Your task to perform on an android device: toggle improve location accuracy Image 0: 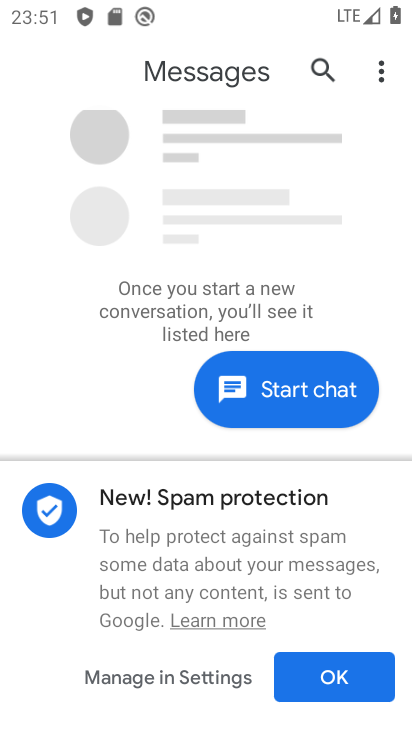
Step 0: press home button
Your task to perform on an android device: toggle improve location accuracy Image 1: 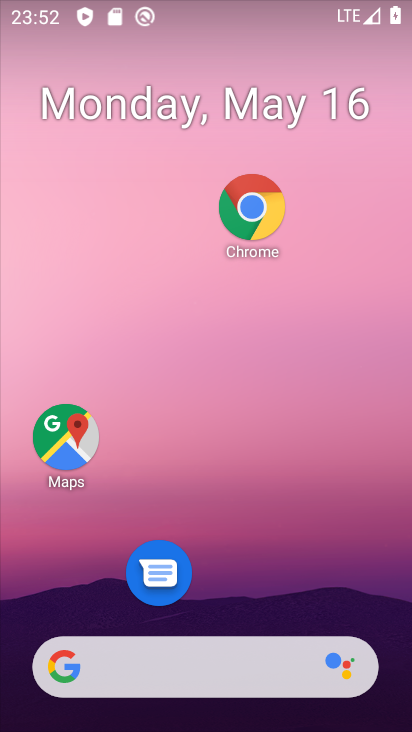
Step 1: drag from (305, 689) to (325, 94)
Your task to perform on an android device: toggle improve location accuracy Image 2: 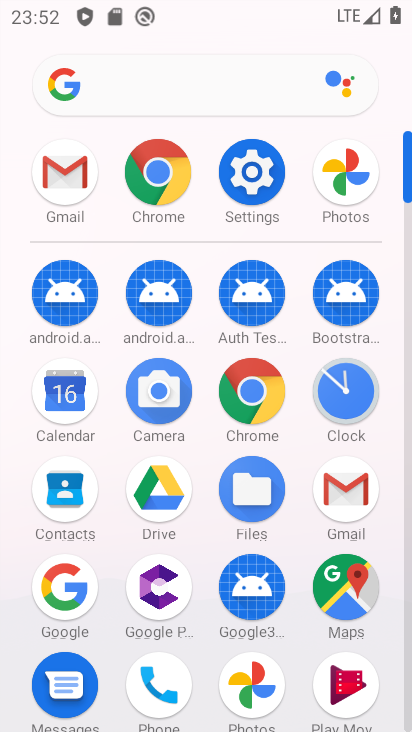
Step 2: click (234, 152)
Your task to perform on an android device: toggle improve location accuracy Image 3: 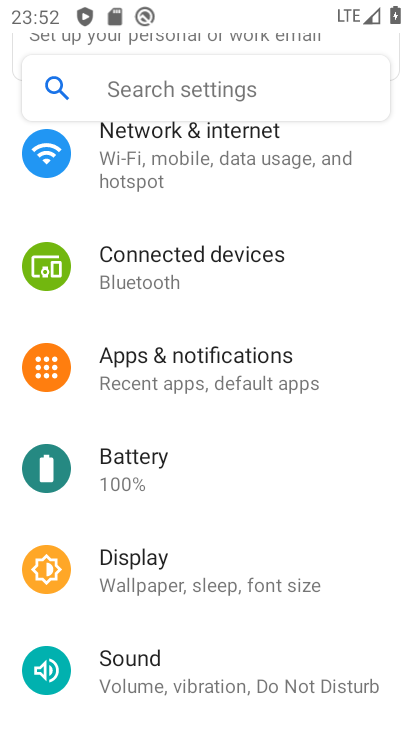
Step 3: drag from (305, 649) to (270, 238)
Your task to perform on an android device: toggle improve location accuracy Image 4: 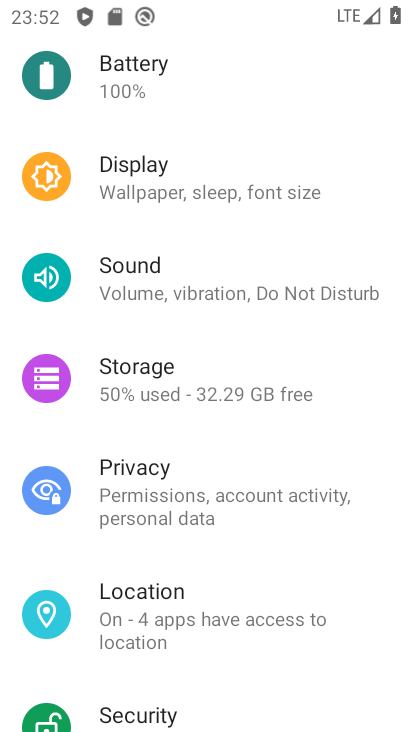
Step 4: click (254, 608)
Your task to perform on an android device: toggle improve location accuracy Image 5: 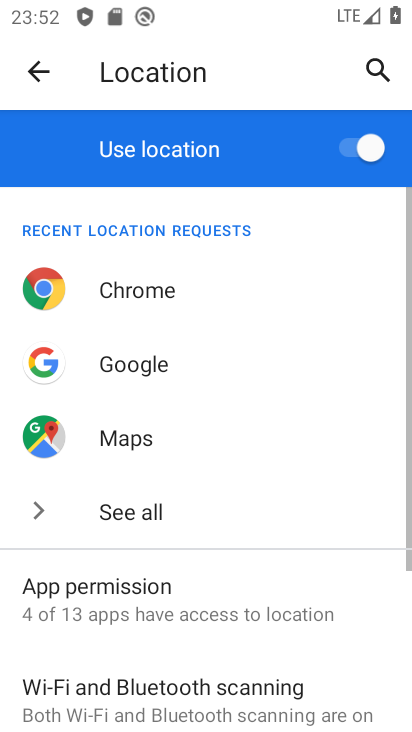
Step 5: drag from (261, 681) to (239, 207)
Your task to perform on an android device: toggle improve location accuracy Image 6: 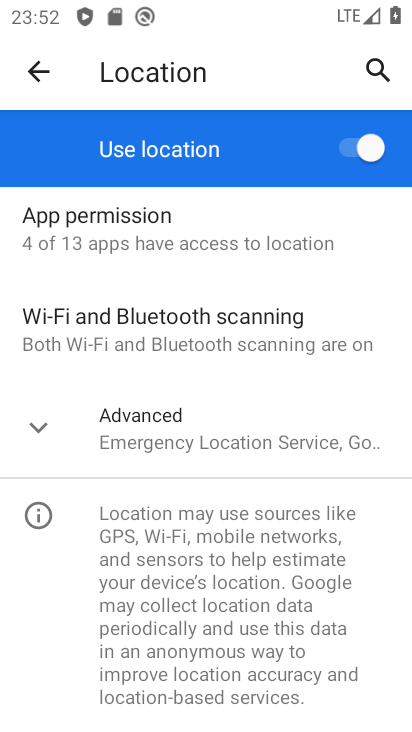
Step 6: click (245, 437)
Your task to perform on an android device: toggle improve location accuracy Image 7: 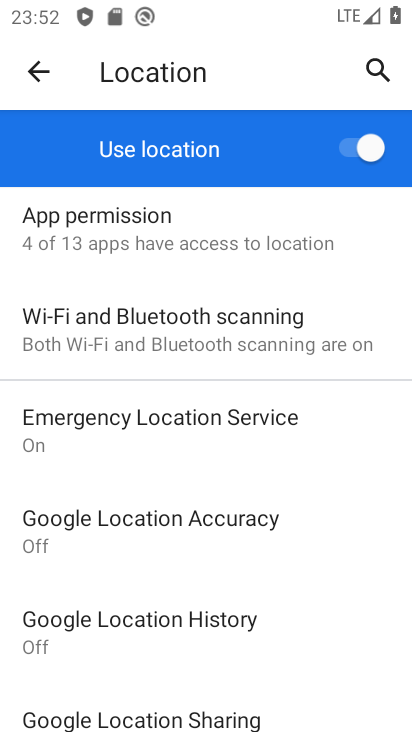
Step 7: click (221, 520)
Your task to perform on an android device: toggle improve location accuracy Image 8: 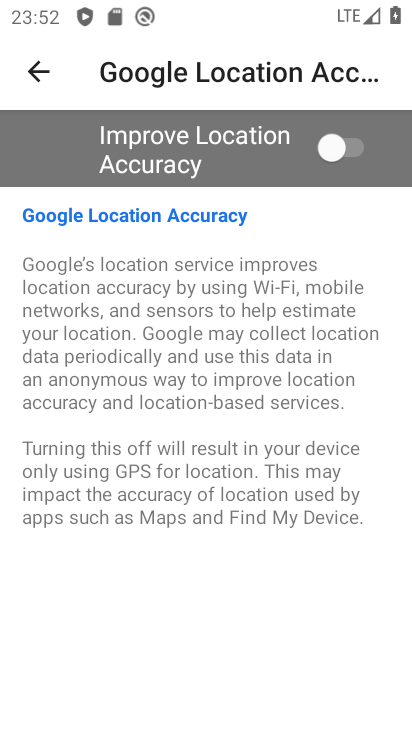
Step 8: click (352, 131)
Your task to perform on an android device: toggle improve location accuracy Image 9: 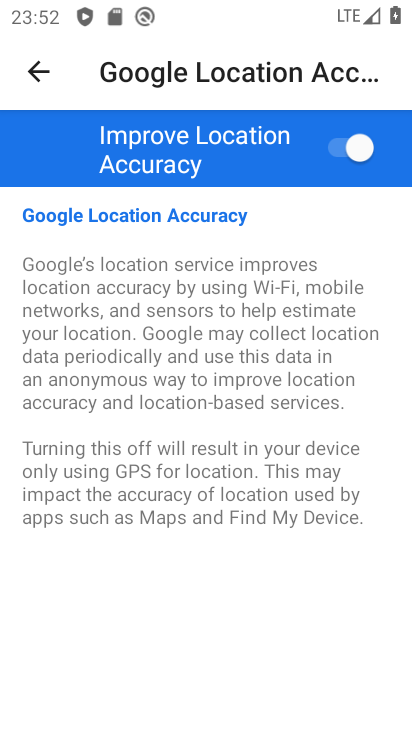
Step 9: task complete